Your task to perform on an android device: make emails show in primary in the gmail app Image 0: 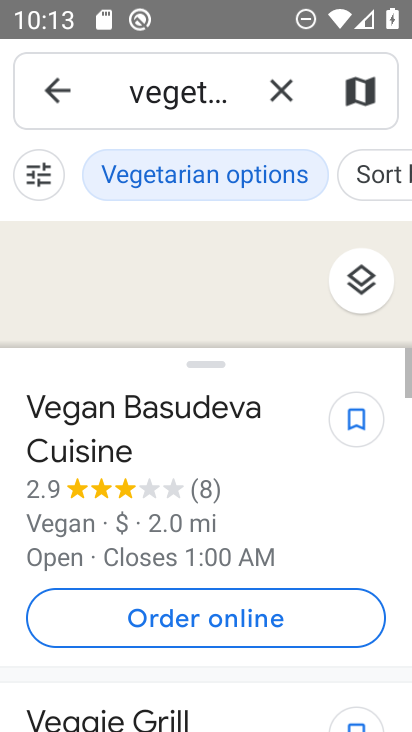
Step 0: press home button
Your task to perform on an android device: make emails show in primary in the gmail app Image 1: 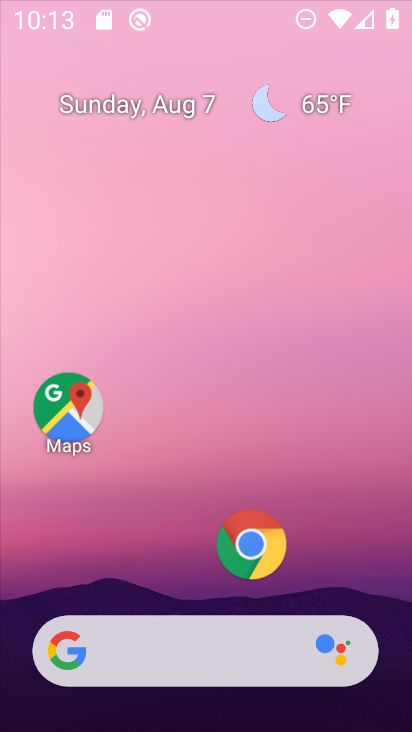
Step 1: drag from (183, 556) to (262, 33)
Your task to perform on an android device: make emails show in primary in the gmail app Image 2: 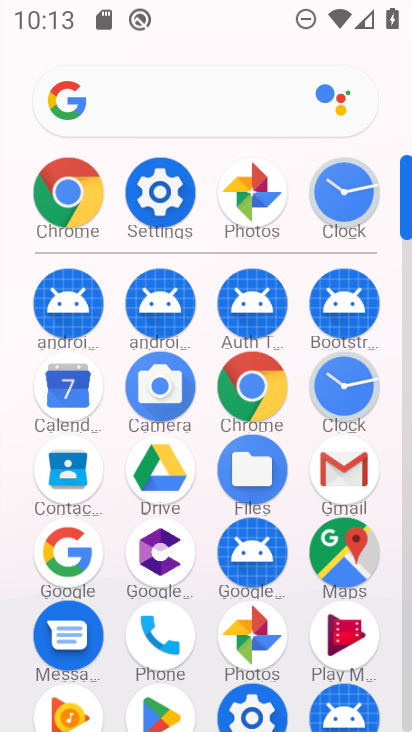
Step 2: click (351, 496)
Your task to perform on an android device: make emails show in primary in the gmail app Image 3: 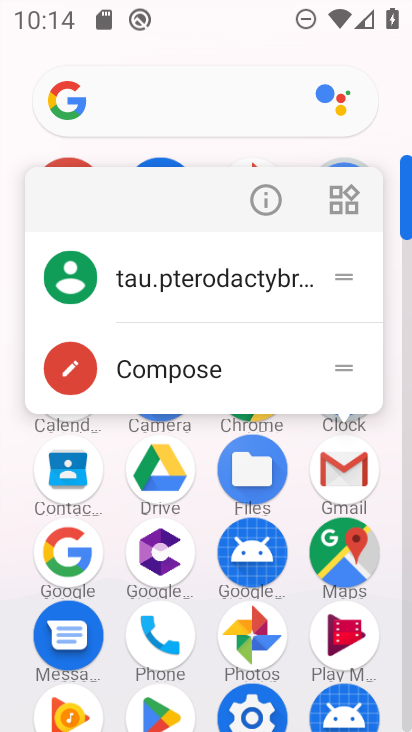
Step 3: click (362, 483)
Your task to perform on an android device: make emails show in primary in the gmail app Image 4: 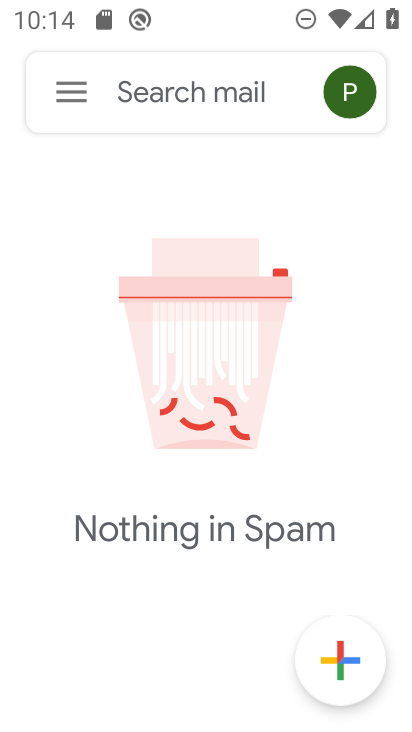
Step 4: click (58, 91)
Your task to perform on an android device: make emails show in primary in the gmail app Image 5: 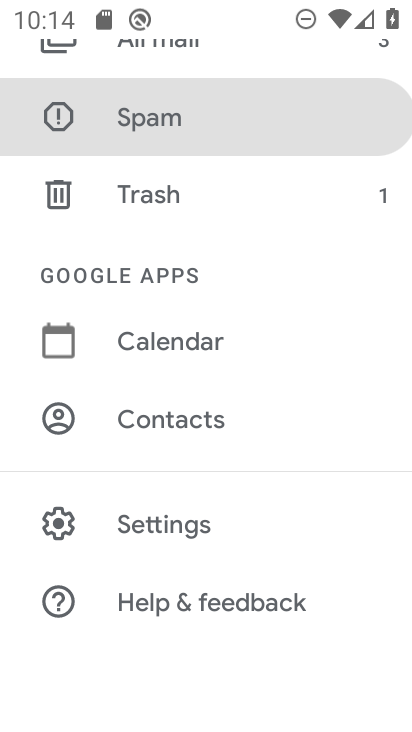
Step 5: drag from (73, 177) to (65, 692)
Your task to perform on an android device: make emails show in primary in the gmail app Image 6: 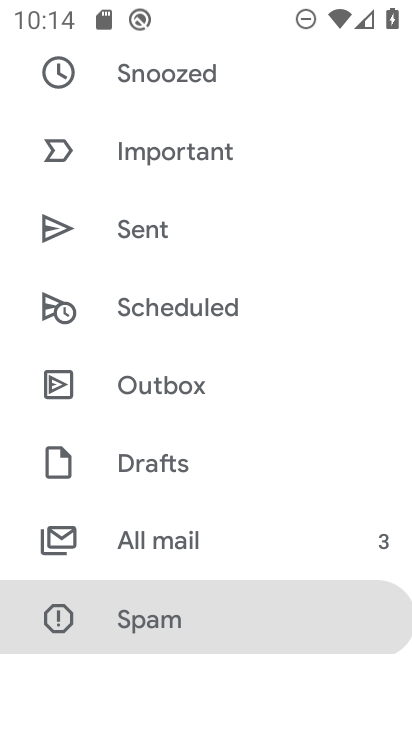
Step 6: drag from (151, 159) to (123, 674)
Your task to perform on an android device: make emails show in primary in the gmail app Image 7: 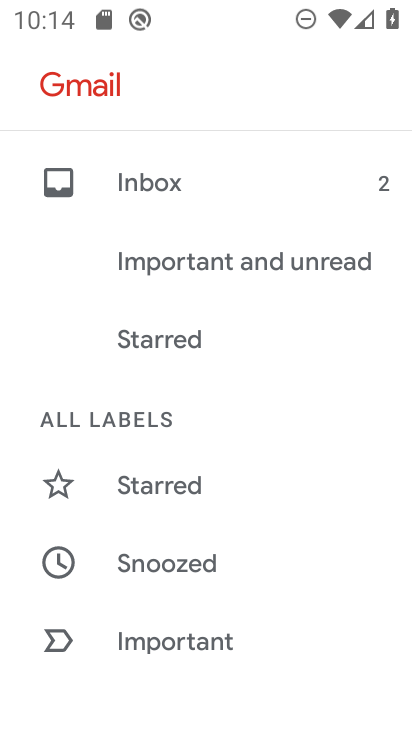
Step 7: drag from (164, 535) to (179, 51)
Your task to perform on an android device: make emails show in primary in the gmail app Image 8: 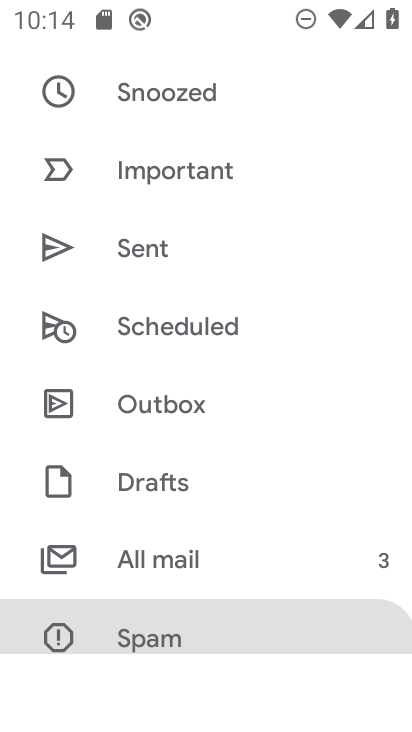
Step 8: drag from (206, 454) to (241, 5)
Your task to perform on an android device: make emails show in primary in the gmail app Image 9: 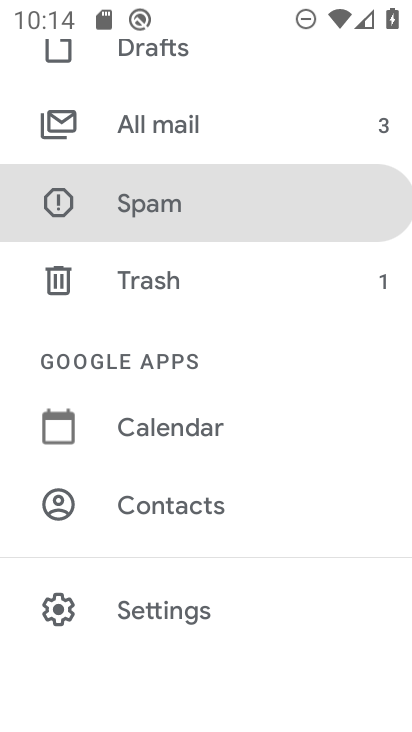
Step 9: click (169, 625)
Your task to perform on an android device: make emails show in primary in the gmail app Image 10: 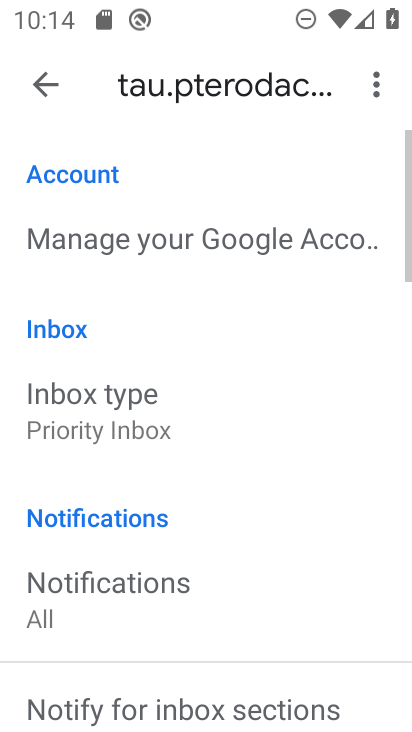
Step 10: drag from (161, 205) to (131, 691)
Your task to perform on an android device: make emails show in primary in the gmail app Image 11: 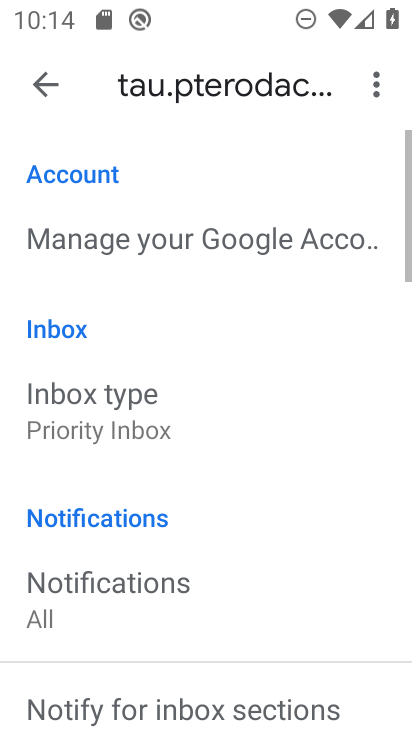
Step 11: drag from (162, 269) to (124, 673)
Your task to perform on an android device: make emails show in primary in the gmail app Image 12: 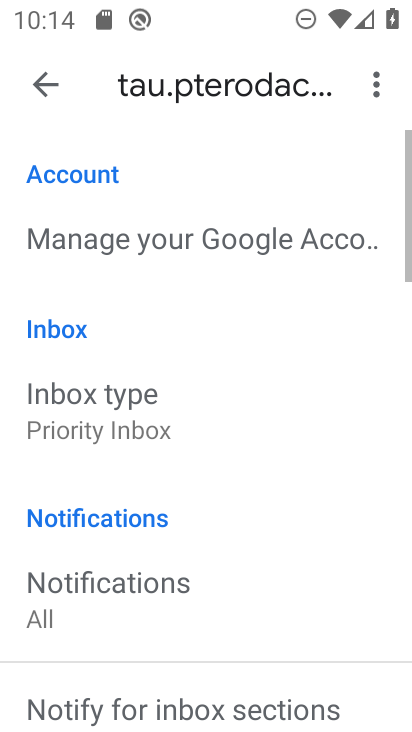
Step 12: click (95, 436)
Your task to perform on an android device: make emails show in primary in the gmail app Image 13: 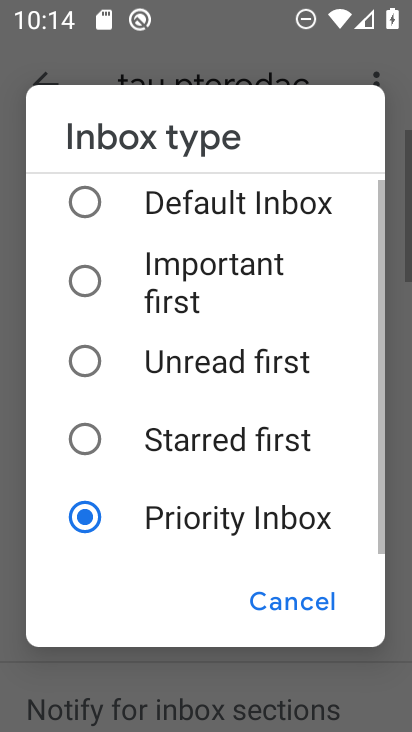
Step 13: click (141, 199)
Your task to perform on an android device: make emails show in primary in the gmail app Image 14: 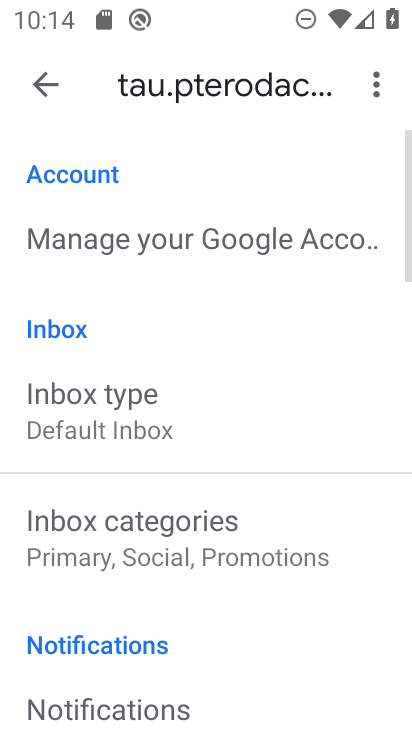
Step 14: click (48, 90)
Your task to perform on an android device: make emails show in primary in the gmail app Image 15: 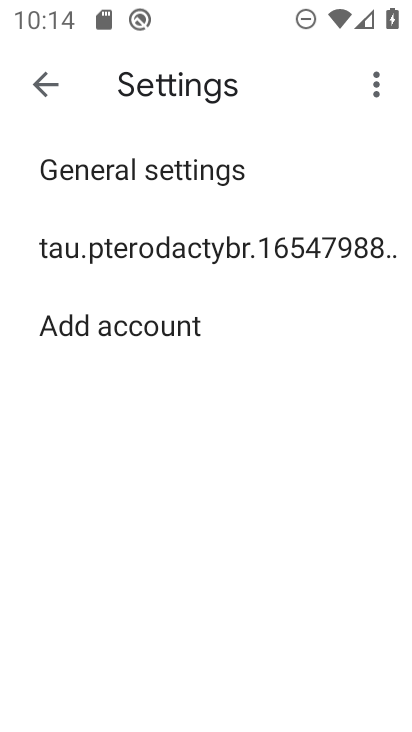
Step 15: click (45, 91)
Your task to perform on an android device: make emails show in primary in the gmail app Image 16: 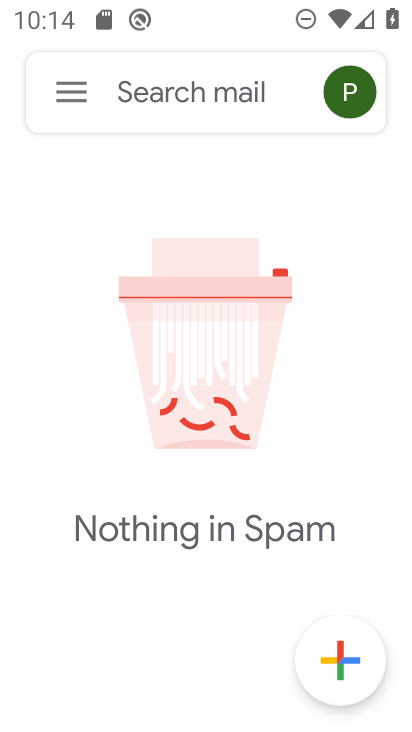
Step 16: click (45, 93)
Your task to perform on an android device: make emails show in primary in the gmail app Image 17: 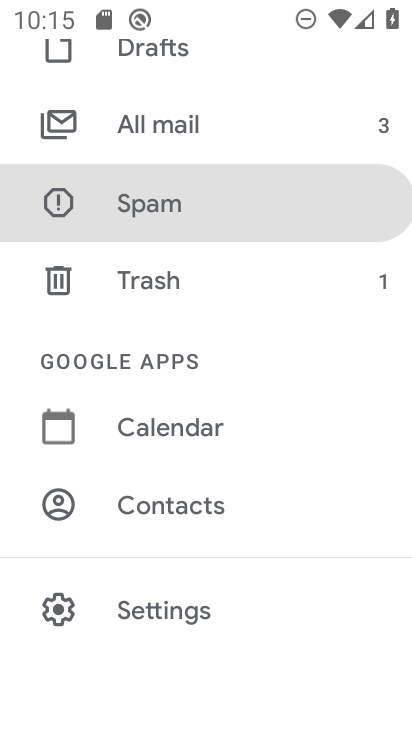
Step 17: drag from (109, 151) to (110, 694)
Your task to perform on an android device: make emails show in primary in the gmail app Image 18: 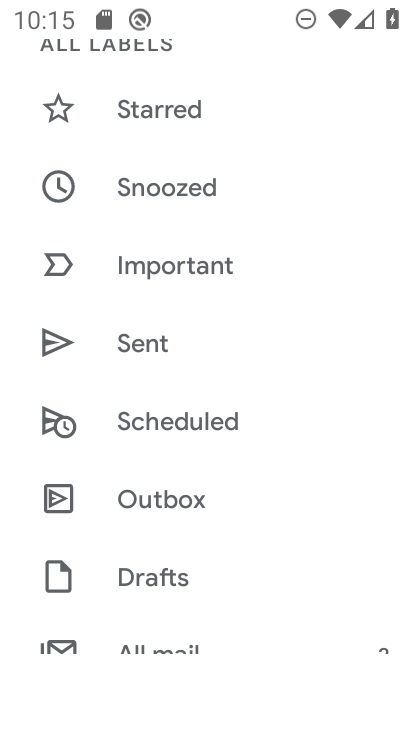
Step 18: drag from (177, 218) to (168, 672)
Your task to perform on an android device: make emails show in primary in the gmail app Image 19: 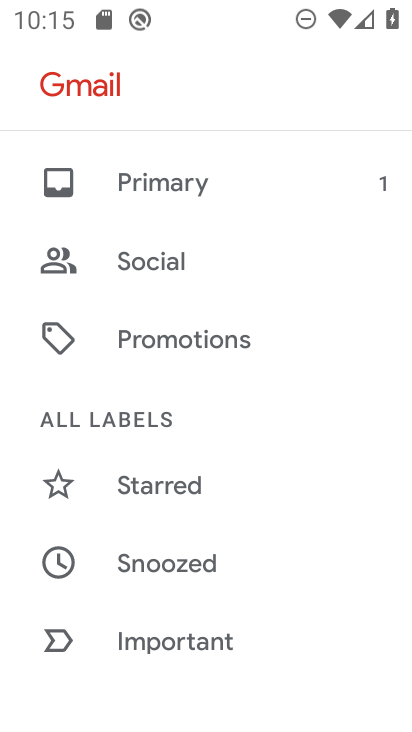
Step 19: drag from (311, 621) to (260, 171)
Your task to perform on an android device: make emails show in primary in the gmail app Image 20: 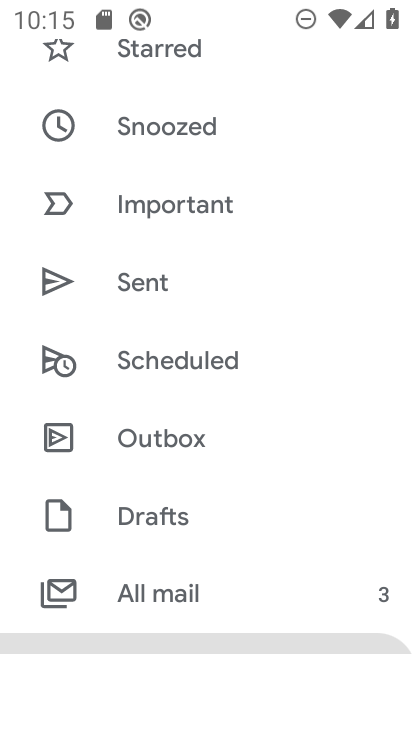
Step 20: drag from (183, 607) to (185, 190)
Your task to perform on an android device: make emails show in primary in the gmail app Image 21: 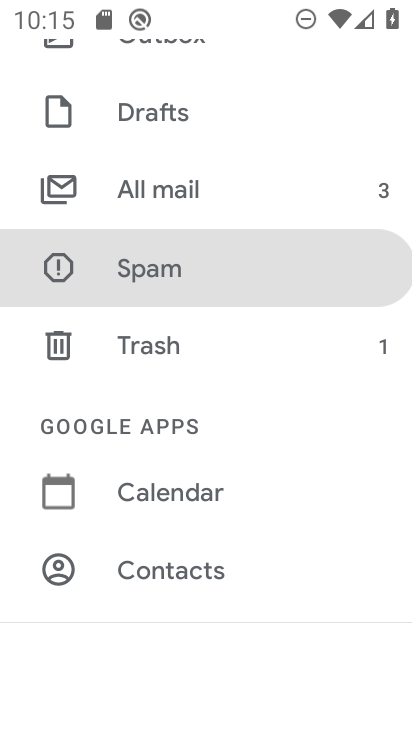
Step 21: drag from (137, 488) to (142, 147)
Your task to perform on an android device: make emails show in primary in the gmail app Image 22: 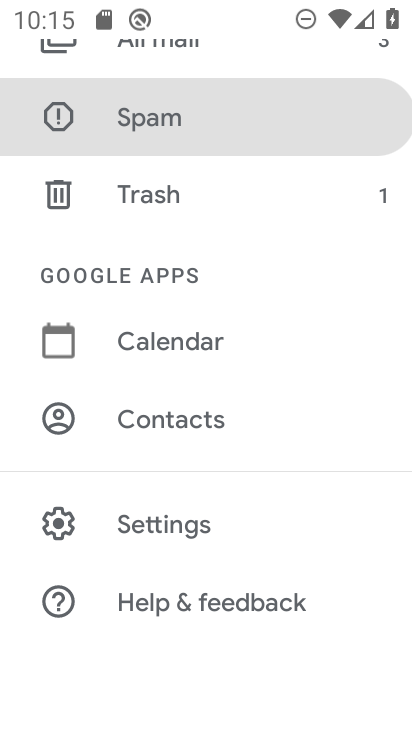
Step 22: click (169, 533)
Your task to perform on an android device: make emails show in primary in the gmail app Image 23: 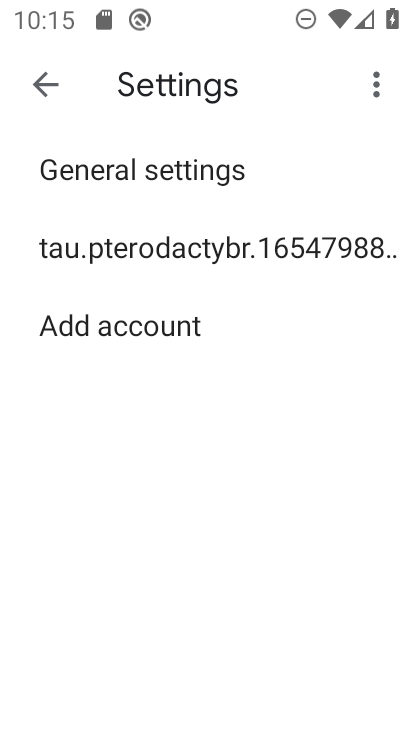
Step 23: click (142, 255)
Your task to perform on an android device: make emails show in primary in the gmail app Image 24: 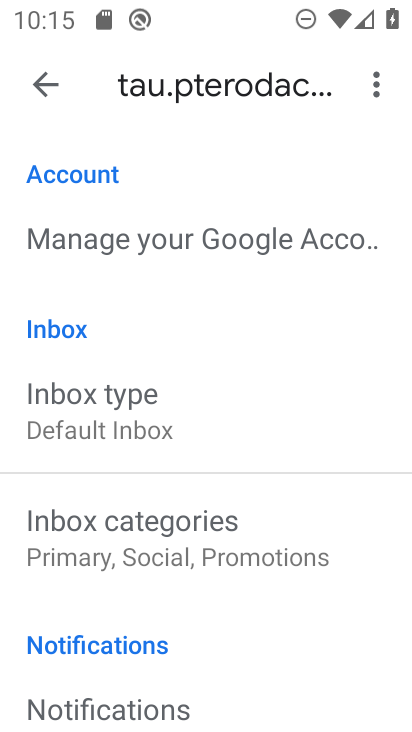
Step 24: click (59, 87)
Your task to perform on an android device: make emails show in primary in the gmail app Image 25: 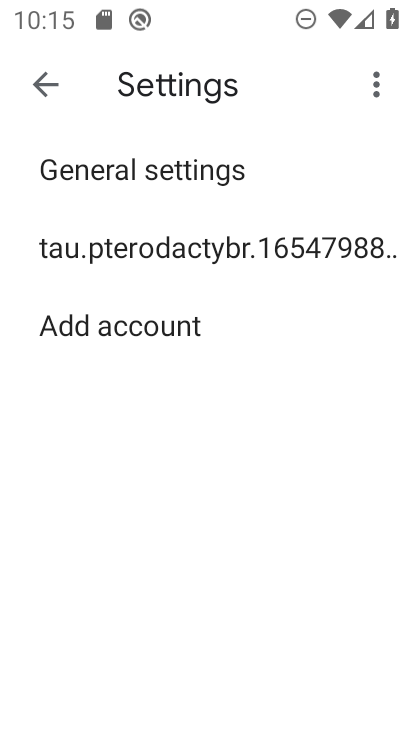
Step 25: click (58, 88)
Your task to perform on an android device: make emails show in primary in the gmail app Image 26: 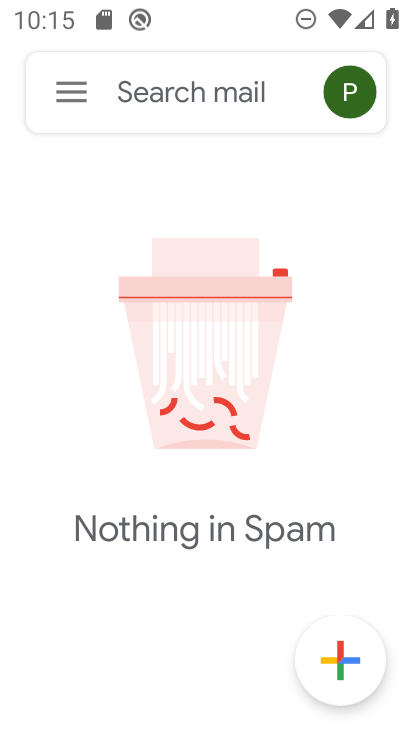
Step 26: click (58, 88)
Your task to perform on an android device: make emails show in primary in the gmail app Image 27: 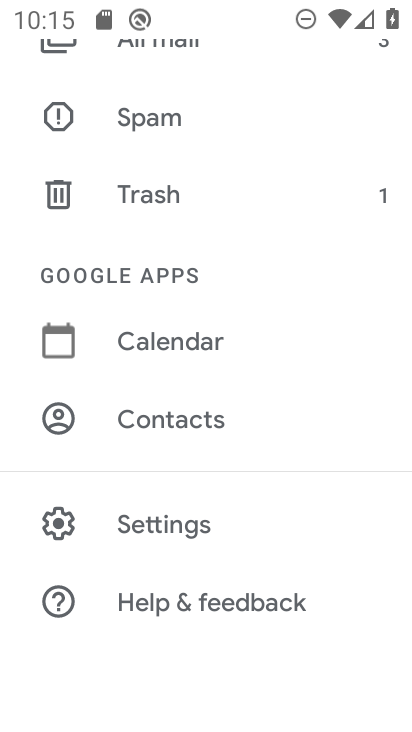
Step 27: drag from (86, 152) to (115, 695)
Your task to perform on an android device: make emails show in primary in the gmail app Image 28: 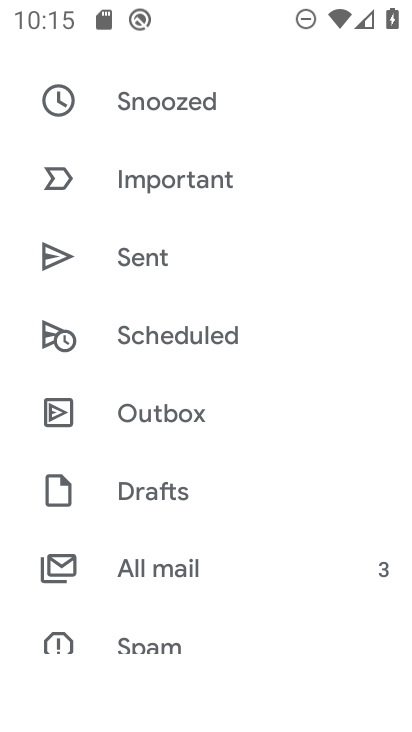
Step 28: drag from (176, 124) to (196, 709)
Your task to perform on an android device: make emails show in primary in the gmail app Image 29: 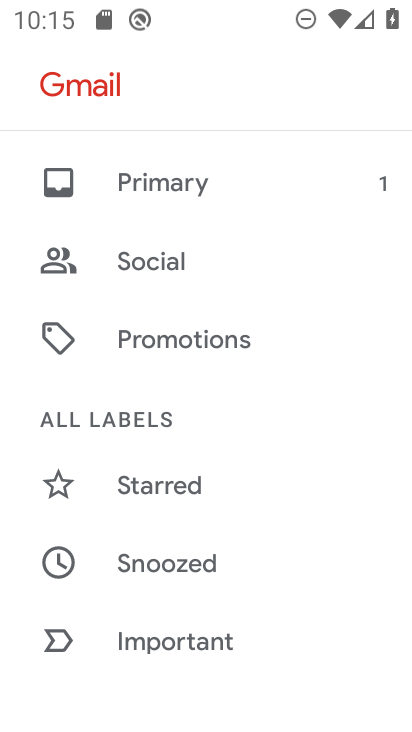
Step 29: click (167, 192)
Your task to perform on an android device: make emails show in primary in the gmail app Image 30: 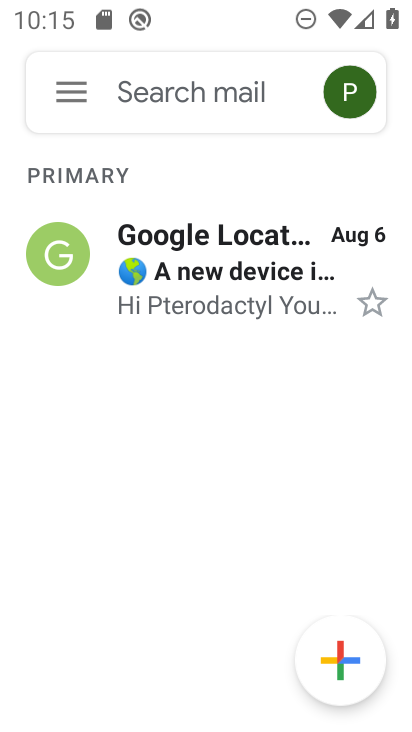
Step 30: task complete